Your task to perform on an android device: turn on translation in the chrome app Image 0: 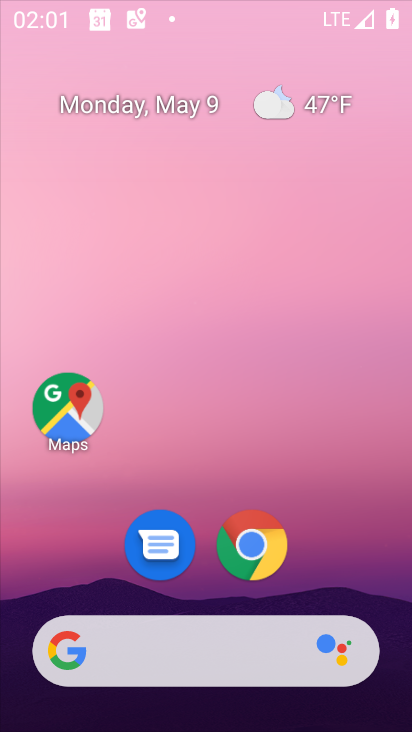
Step 0: drag from (297, 519) to (330, 74)
Your task to perform on an android device: turn on translation in the chrome app Image 1: 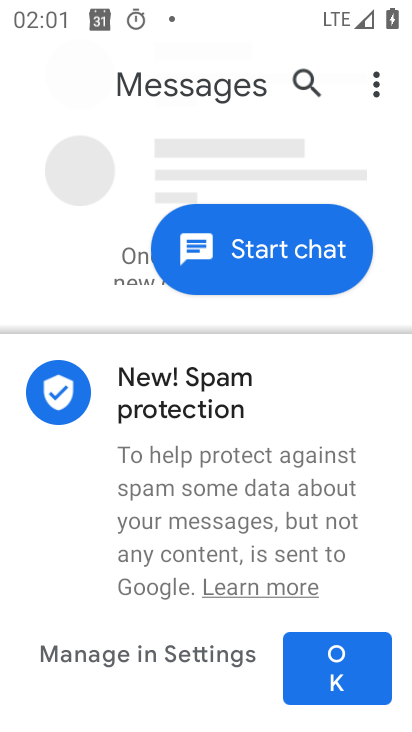
Step 1: press home button
Your task to perform on an android device: turn on translation in the chrome app Image 2: 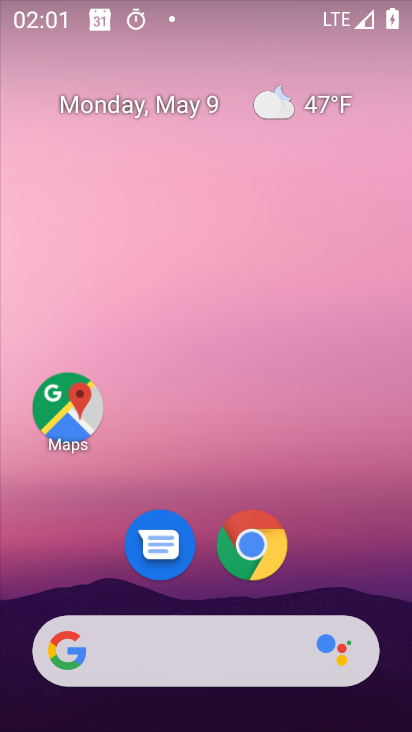
Step 2: drag from (314, 596) to (339, 1)
Your task to perform on an android device: turn on translation in the chrome app Image 3: 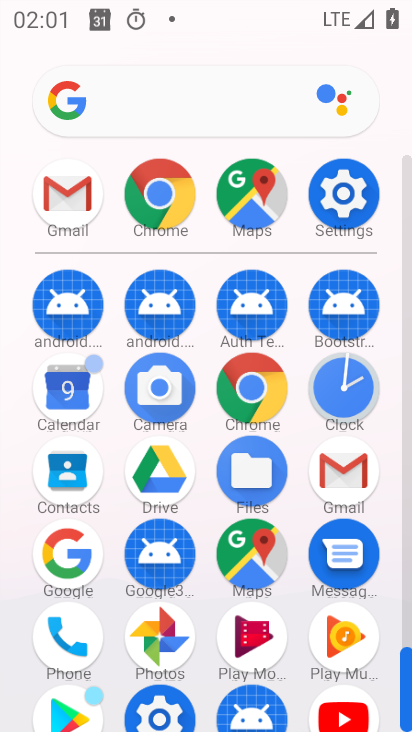
Step 3: click (250, 411)
Your task to perform on an android device: turn on translation in the chrome app Image 4: 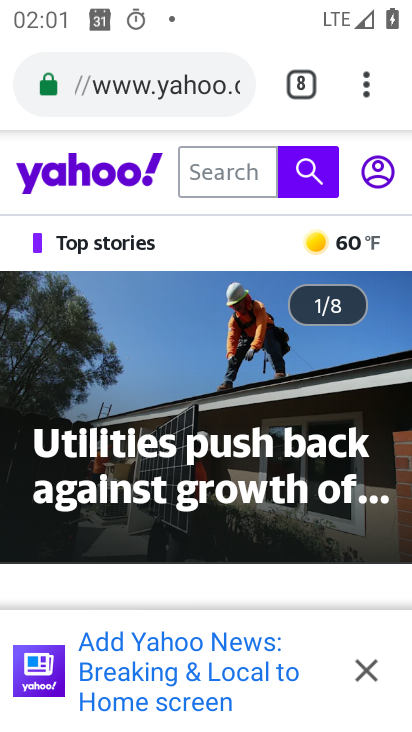
Step 4: drag from (371, 78) to (159, 604)
Your task to perform on an android device: turn on translation in the chrome app Image 5: 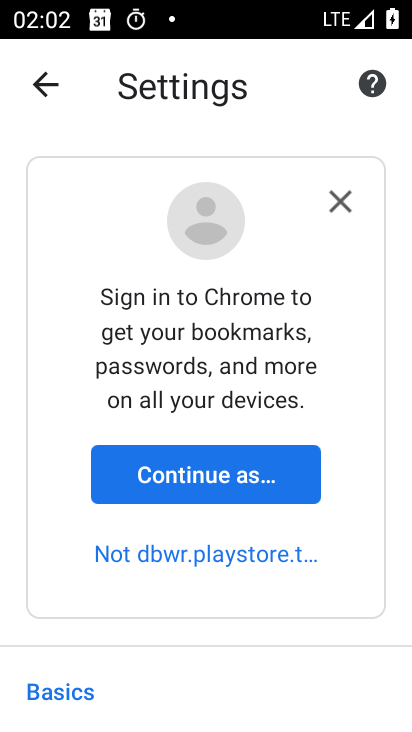
Step 5: drag from (280, 668) to (322, 224)
Your task to perform on an android device: turn on translation in the chrome app Image 6: 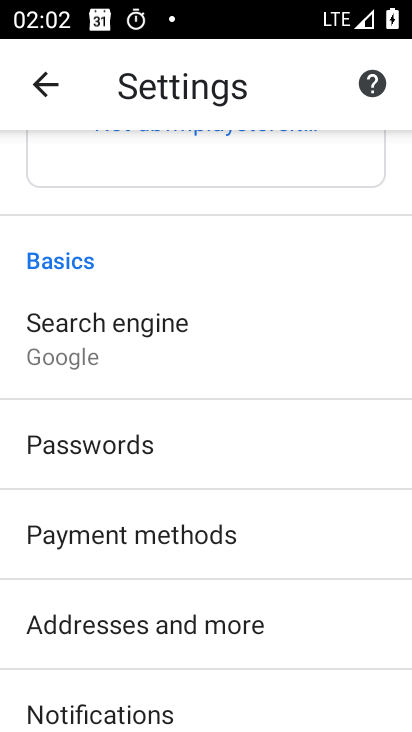
Step 6: drag from (226, 698) to (259, 248)
Your task to perform on an android device: turn on translation in the chrome app Image 7: 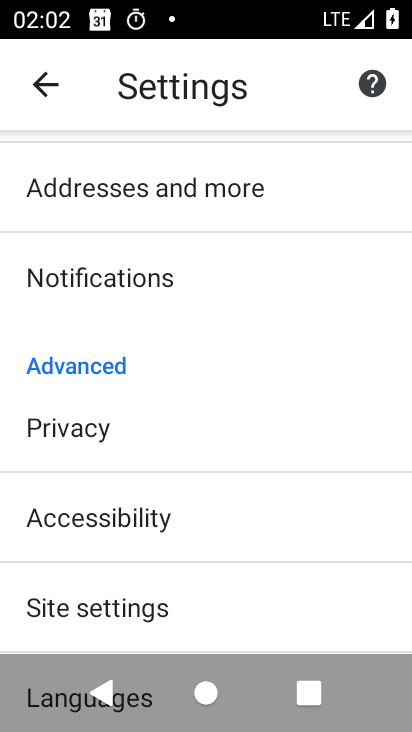
Step 7: click (137, 605)
Your task to perform on an android device: turn on translation in the chrome app Image 8: 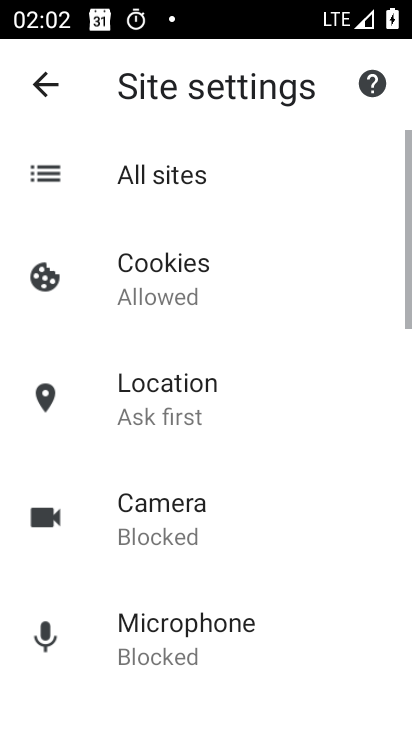
Step 8: drag from (256, 719) to (243, 80)
Your task to perform on an android device: turn on translation in the chrome app Image 9: 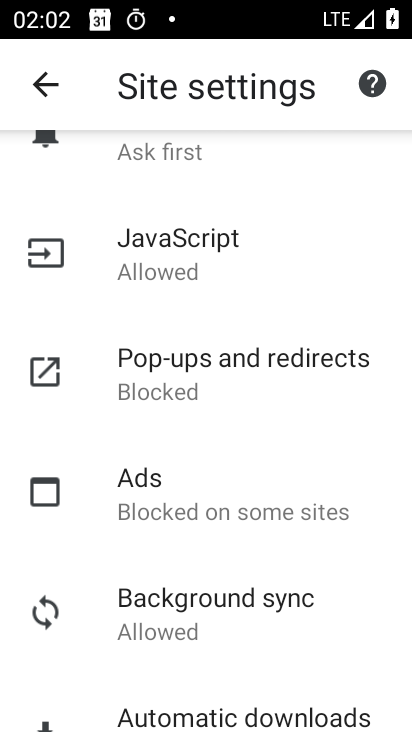
Step 9: drag from (263, 217) to (283, 703)
Your task to perform on an android device: turn on translation in the chrome app Image 10: 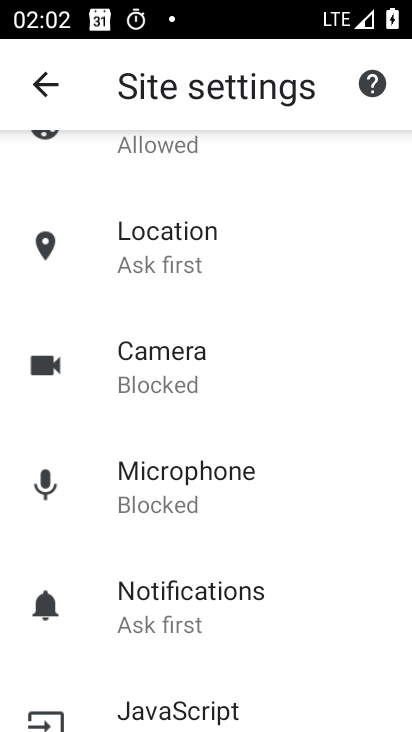
Step 10: drag from (286, 679) to (307, 384)
Your task to perform on an android device: turn on translation in the chrome app Image 11: 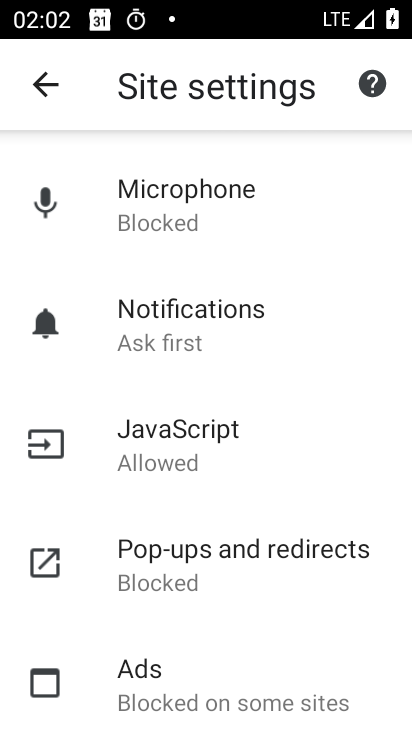
Step 11: press back button
Your task to perform on an android device: turn on translation in the chrome app Image 12: 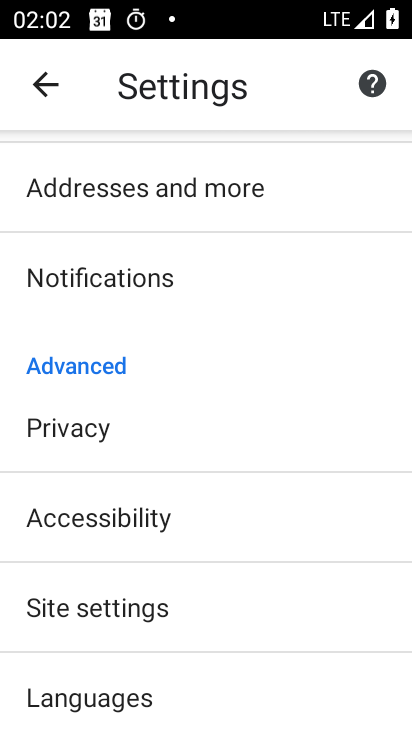
Step 12: drag from (232, 695) to (284, 242)
Your task to perform on an android device: turn on translation in the chrome app Image 13: 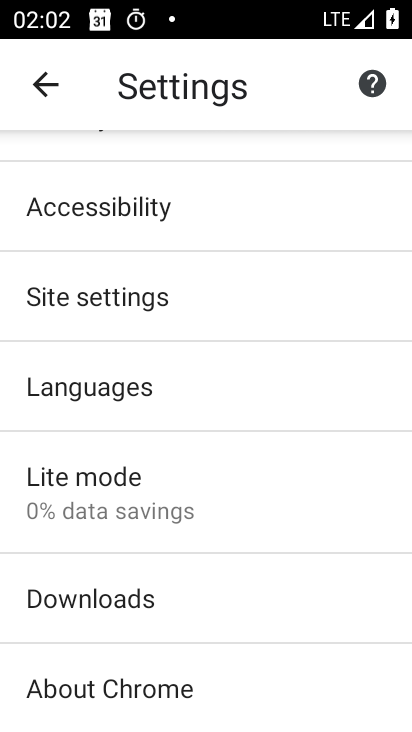
Step 13: click (209, 402)
Your task to perform on an android device: turn on translation in the chrome app Image 14: 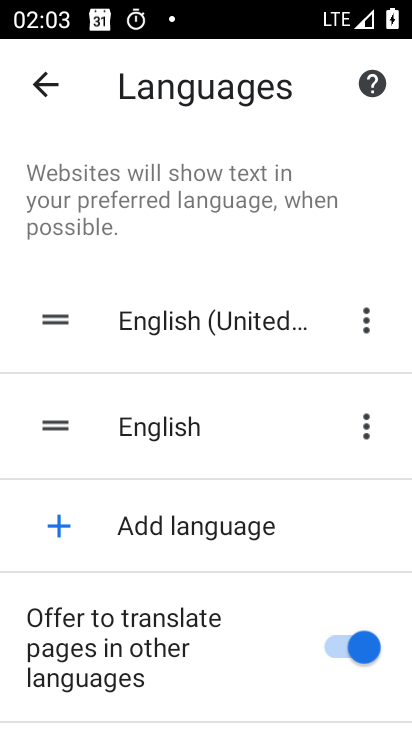
Step 14: task complete